Your task to perform on an android device: What is the news today? Image 0: 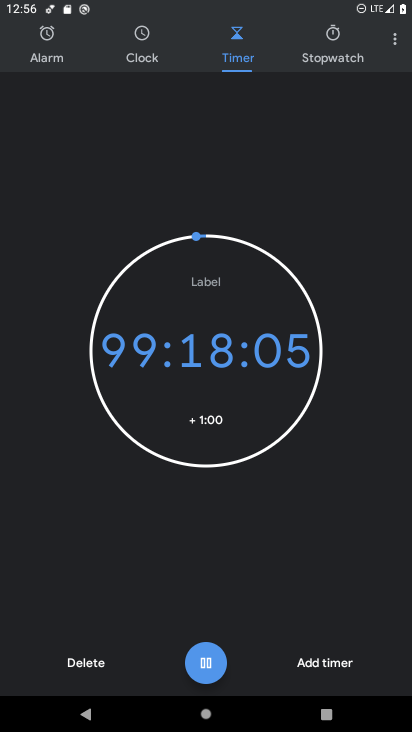
Step 0: press home button
Your task to perform on an android device: What is the news today? Image 1: 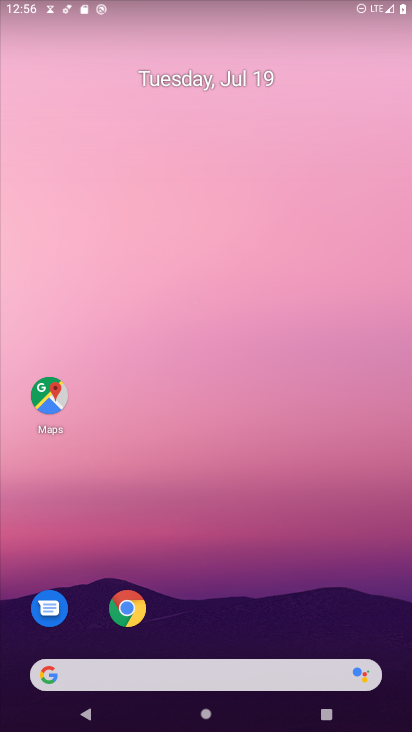
Step 1: drag from (209, 696) to (4, 3)
Your task to perform on an android device: What is the news today? Image 2: 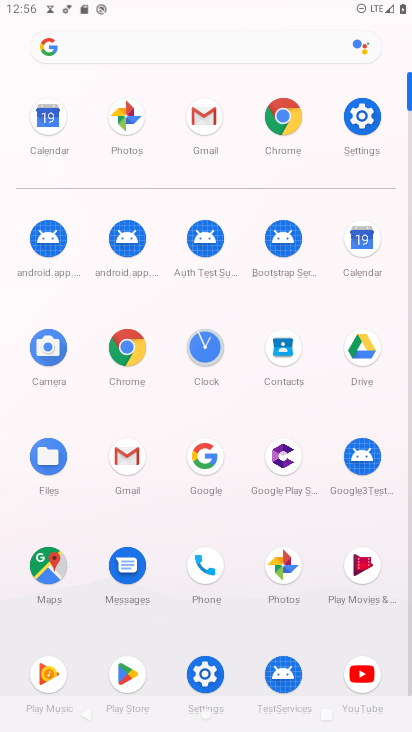
Step 2: click (129, 329)
Your task to perform on an android device: What is the news today? Image 3: 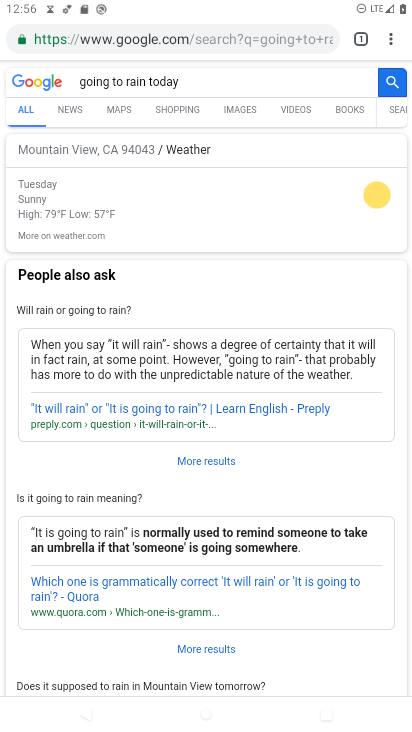
Step 3: click (219, 40)
Your task to perform on an android device: What is the news today? Image 4: 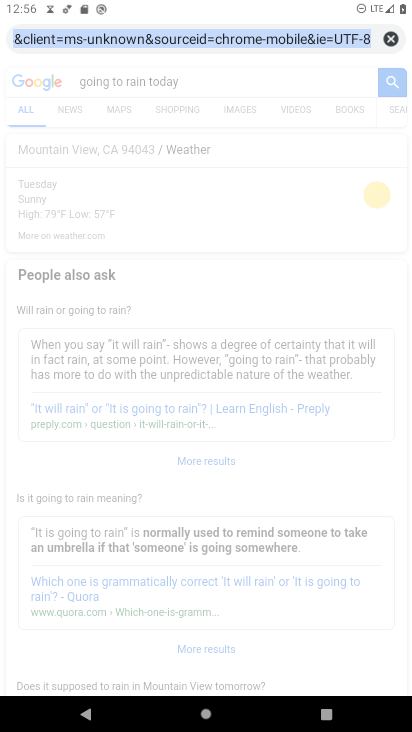
Step 4: type "news today"
Your task to perform on an android device: What is the news today? Image 5: 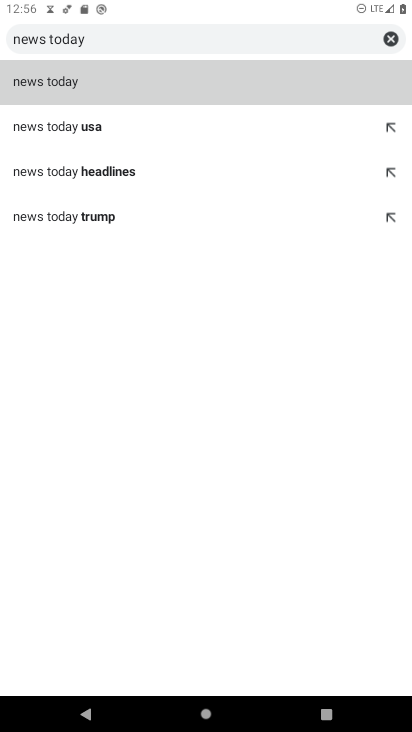
Step 5: click (303, 78)
Your task to perform on an android device: What is the news today? Image 6: 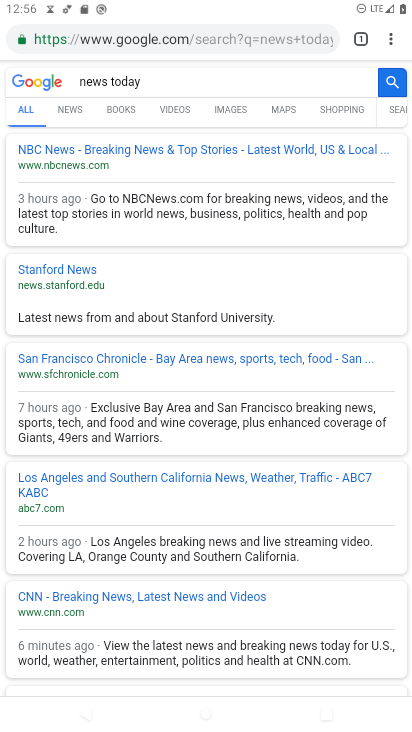
Step 6: task complete